Your task to perform on an android device: Is it going to rain this weekend? Image 0: 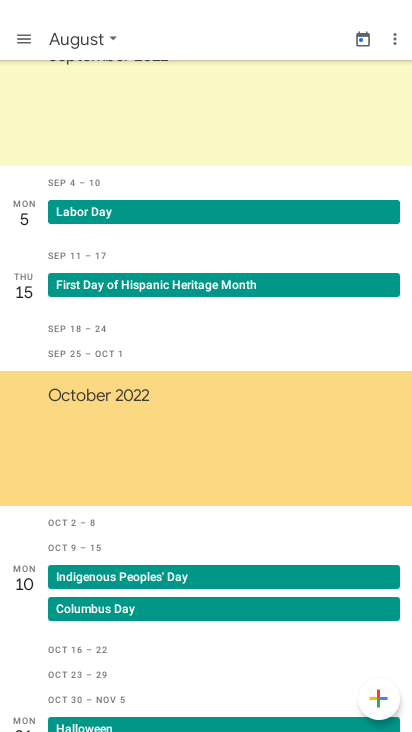
Step 0: press home button
Your task to perform on an android device: Is it going to rain this weekend? Image 1: 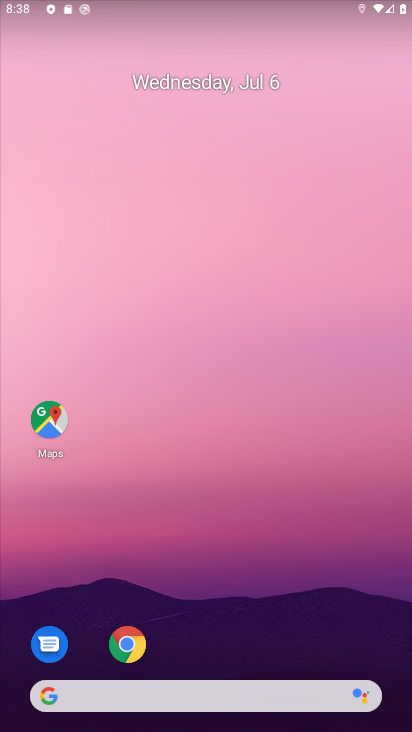
Step 1: click (188, 702)
Your task to perform on an android device: Is it going to rain this weekend? Image 2: 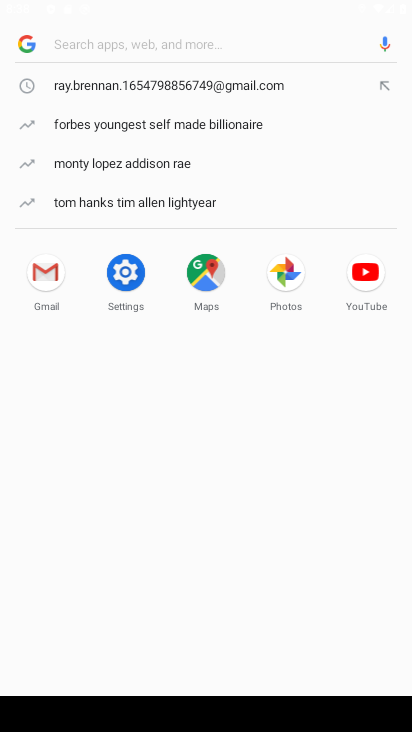
Step 2: type "weather"
Your task to perform on an android device: Is it going to rain this weekend? Image 3: 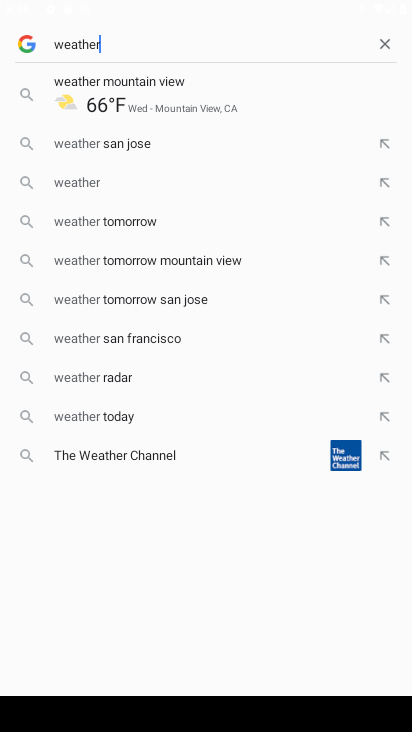
Step 3: type ""
Your task to perform on an android device: Is it going to rain this weekend? Image 4: 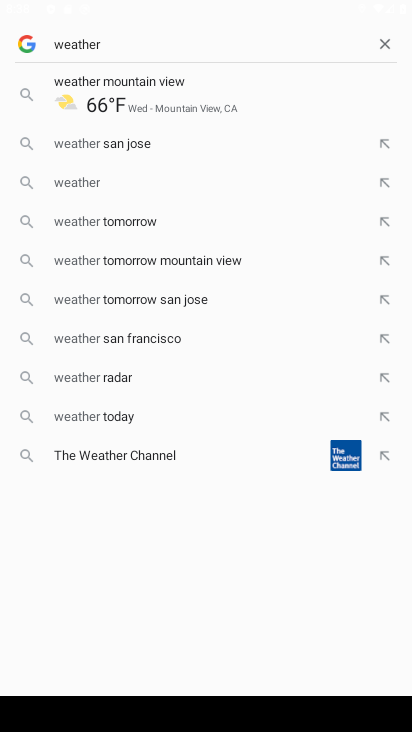
Step 4: click (89, 82)
Your task to perform on an android device: Is it going to rain this weekend? Image 5: 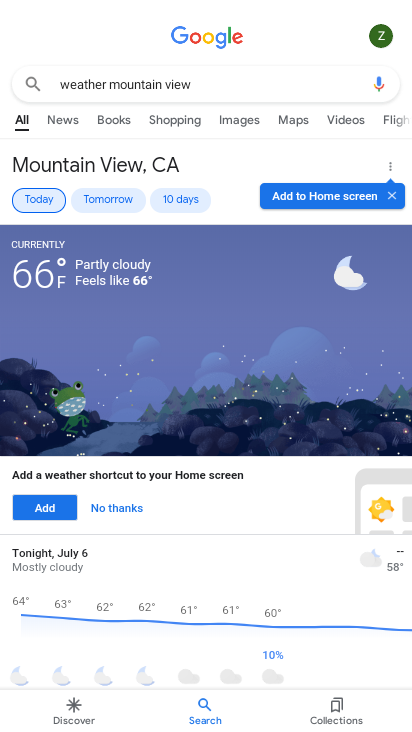
Step 5: task complete